Your task to perform on an android device: open wifi settings Image 0: 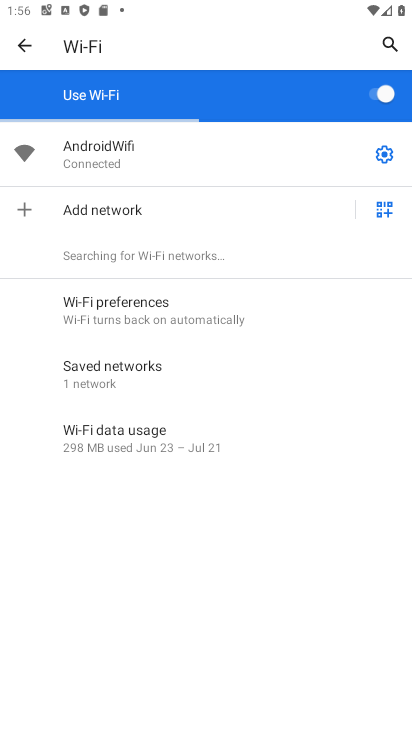
Step 0: press home button
Your task to perform on an android device: open wifi settings Image 1: 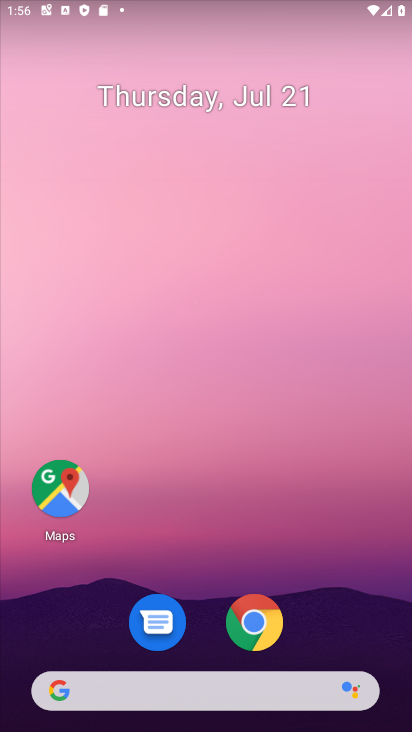
Step 1: drag from (231, 711) to (203, 201)
Your task to perform on an android device: open wifi settings Image 2: 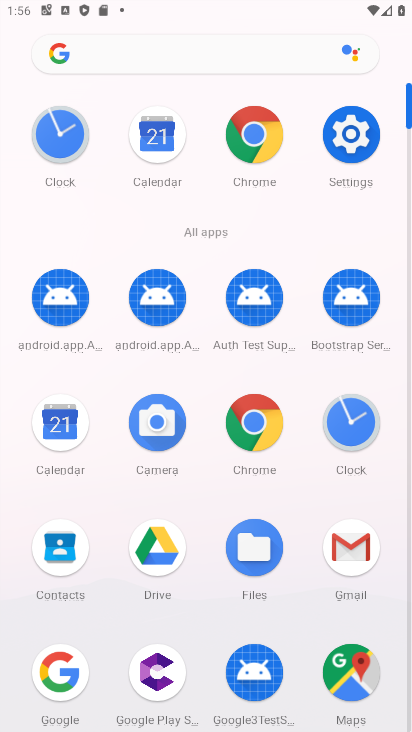
Step 2: click (346, 136)
Your task to perform on an android device: open wifi settings Image 3: 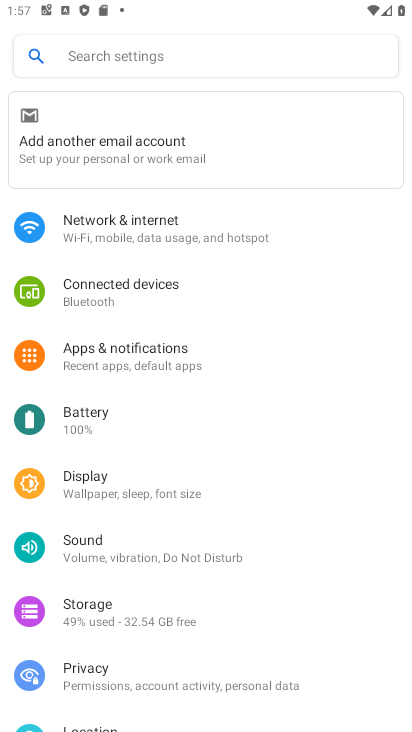
Step 3: click (137, 232)
Your task to perform on an android device: open wifi settings Image 4: 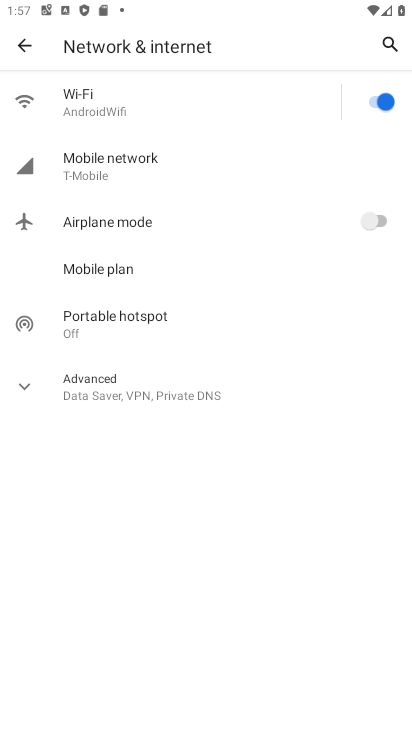
Step 4: click (148, 115)
Your task to perform on an android device: open wifi settings Image 5: 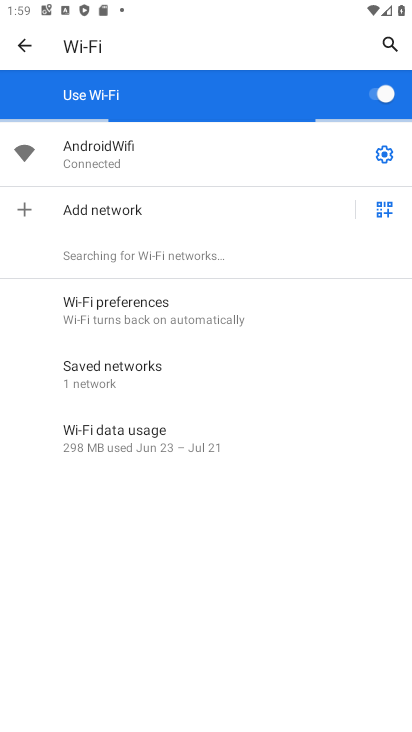
Step 5: task complete